Your task to perform on an android device: Show the shopping cart on amazon.com. Image 0: 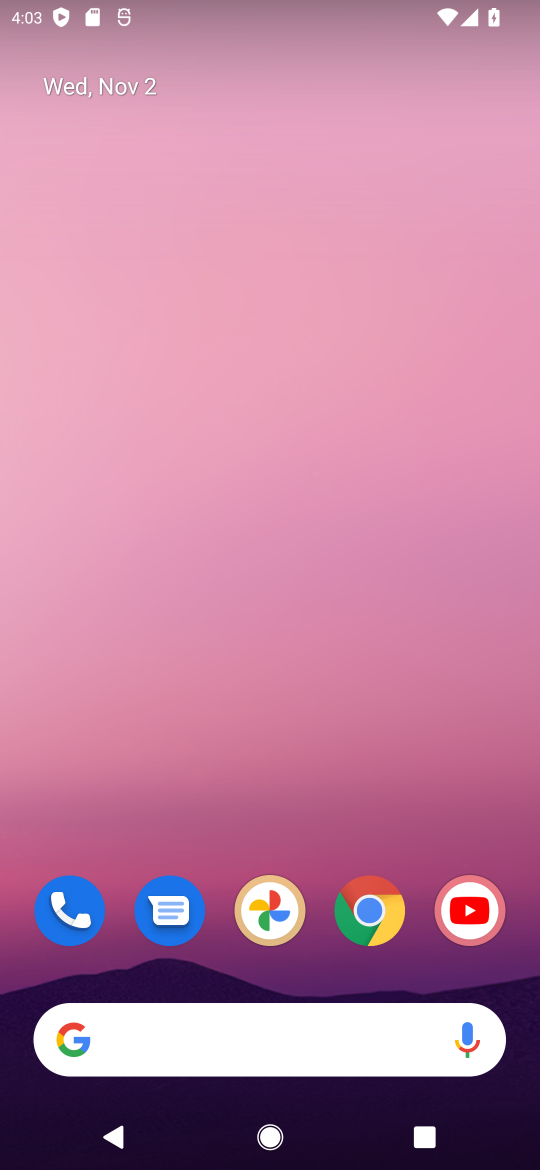
Step 0: click (386, 913)
Your task to perform on an android device: Show the shopping cart on amazon.com. Image 1: 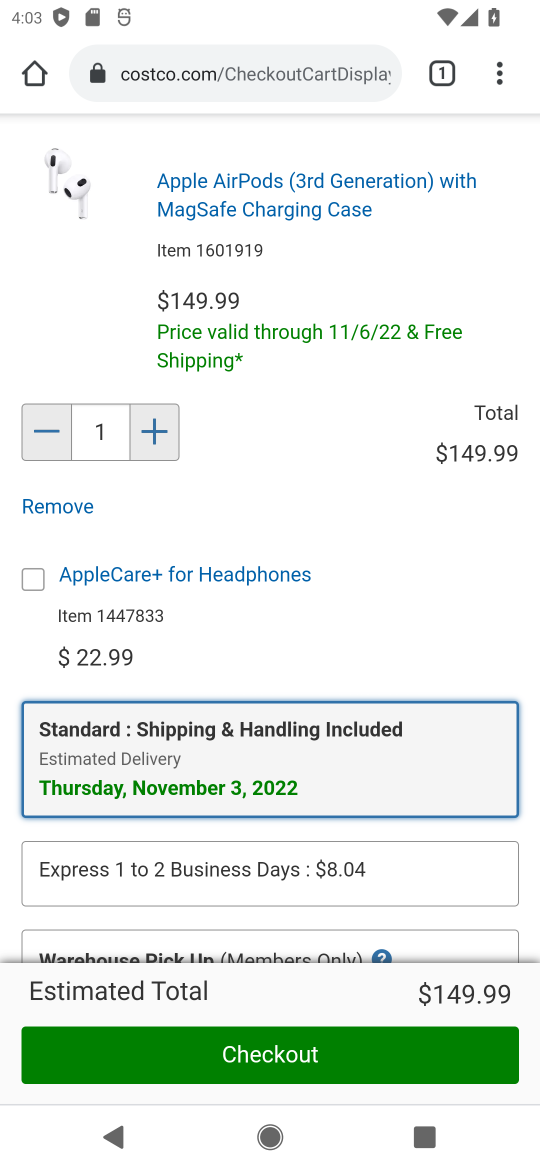
Step 1: click (231, 68)
Your task to perform on an android device: Show the shopping cart on amazon.com. Image 2: 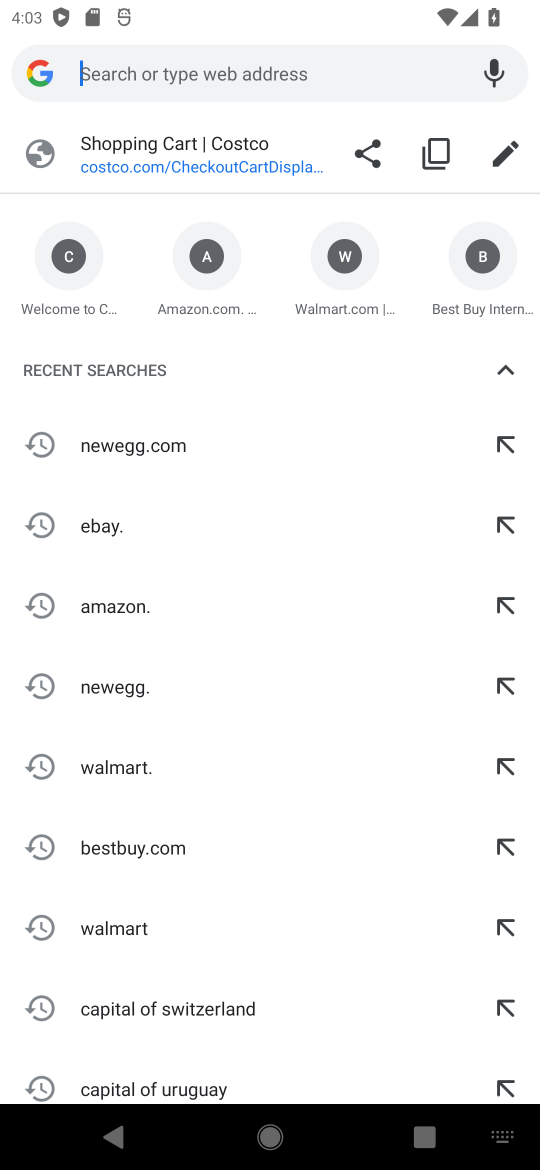
Step 2: type "amazon.com"
Your task to perform on an android device: Show the shopping cart on amazon.com. Image 3: 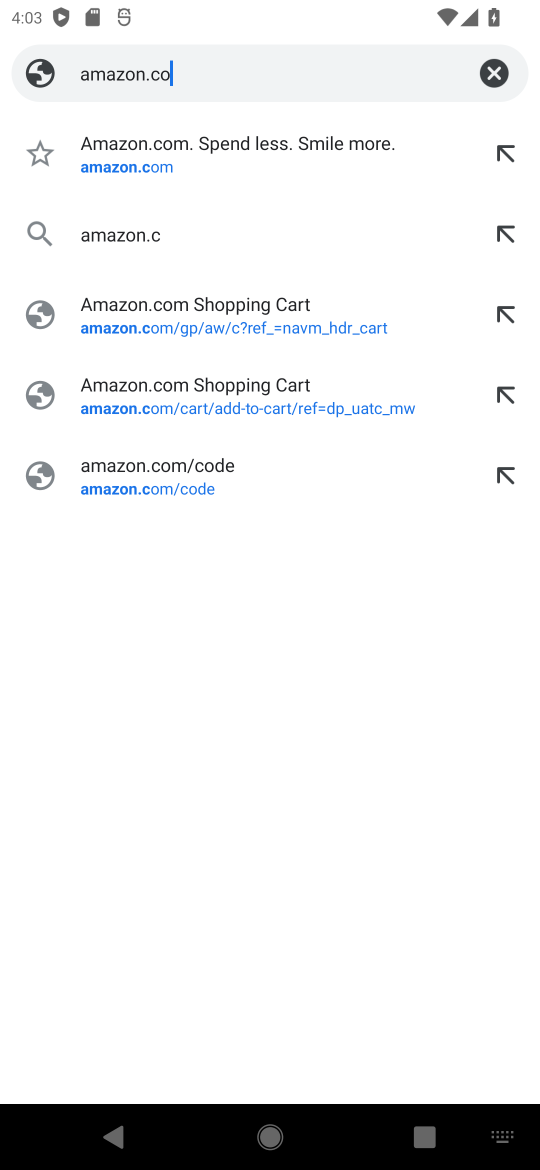
Step 3: type ""
Your task to perform on an android device: Show the shopping cart on amazon.com. Image 4: 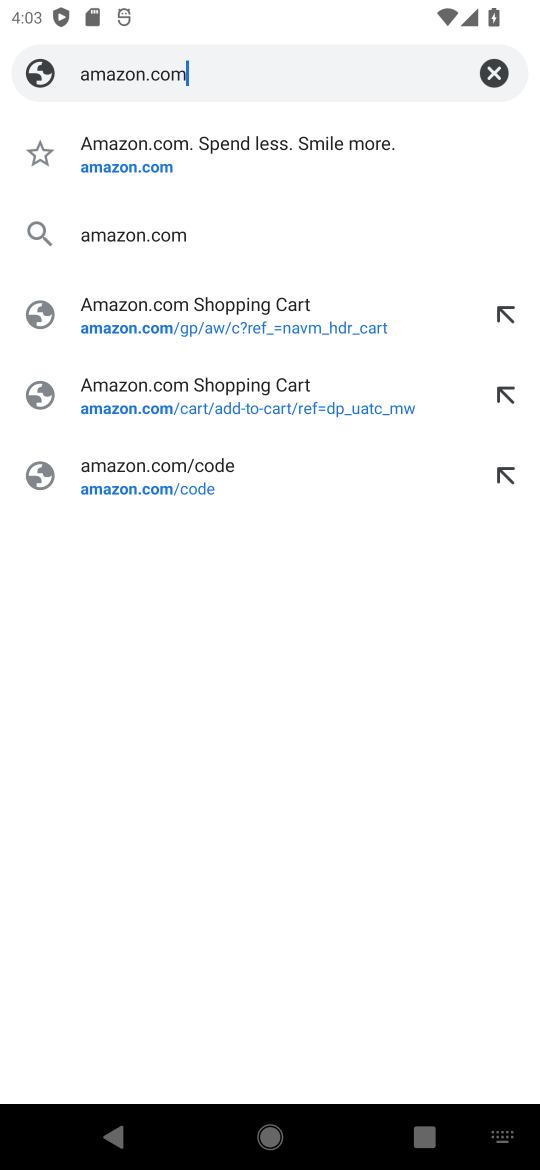
Step 4: click (234, 154)
Your task to perform on an android device: Show the shopping cart on amazon.com. Image 5: 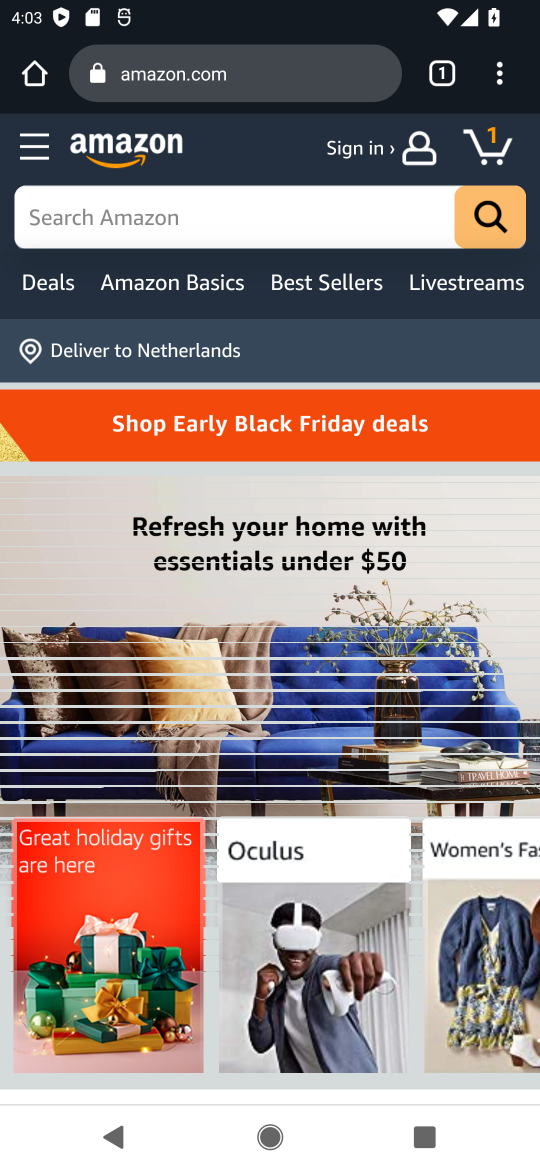
Step 5: click (489, 139)
Your task to perform on an android device: Show the shopping cart on amazon.com. Image 6: 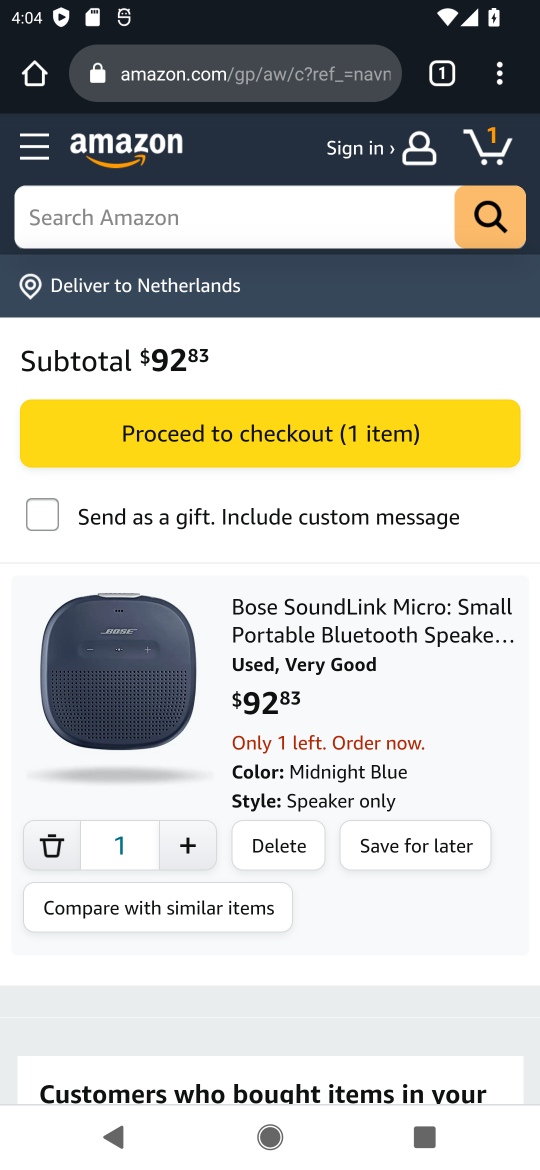
Step 6: click (265, 842)
Your task to perform on an android device: Show the shopping cart on amazon.com. Image 7: 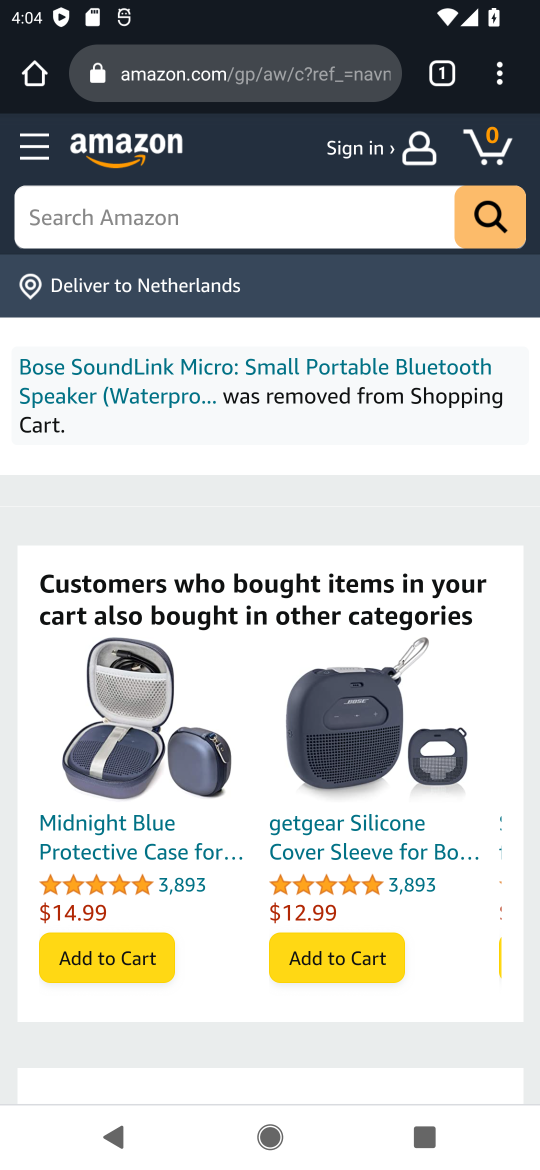
Step 7: drag from (247, 874) to (341, 352)
Your task to perform on an android device: Show the shopping cart on amazon.com. Image 8: 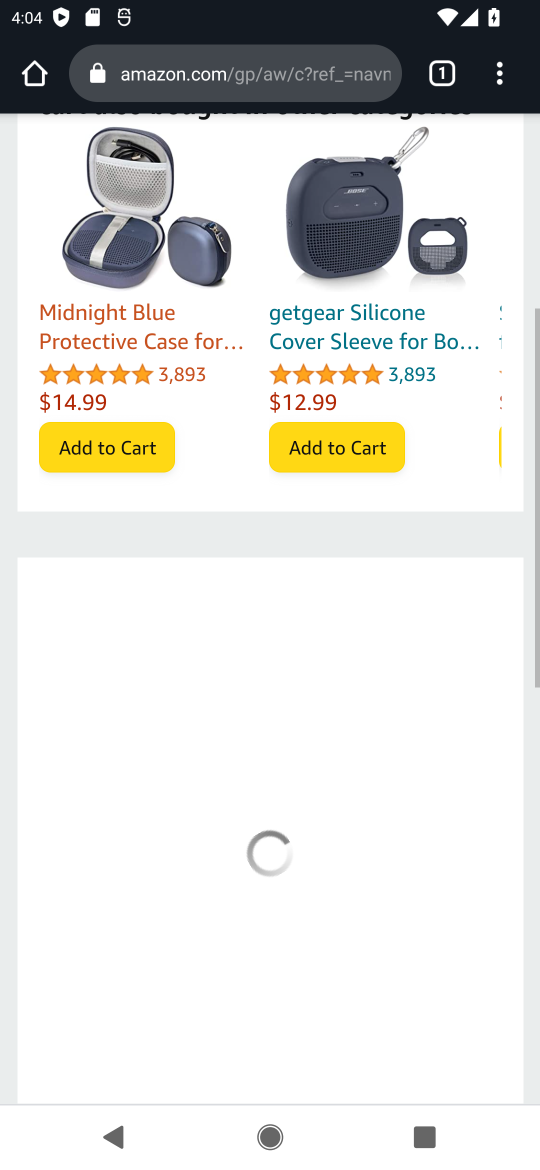
Step 8: drag from (269, 820) to (283, 384)
Your task to perform on an android device: Show the shopping cart on amazon.com. Image 9: 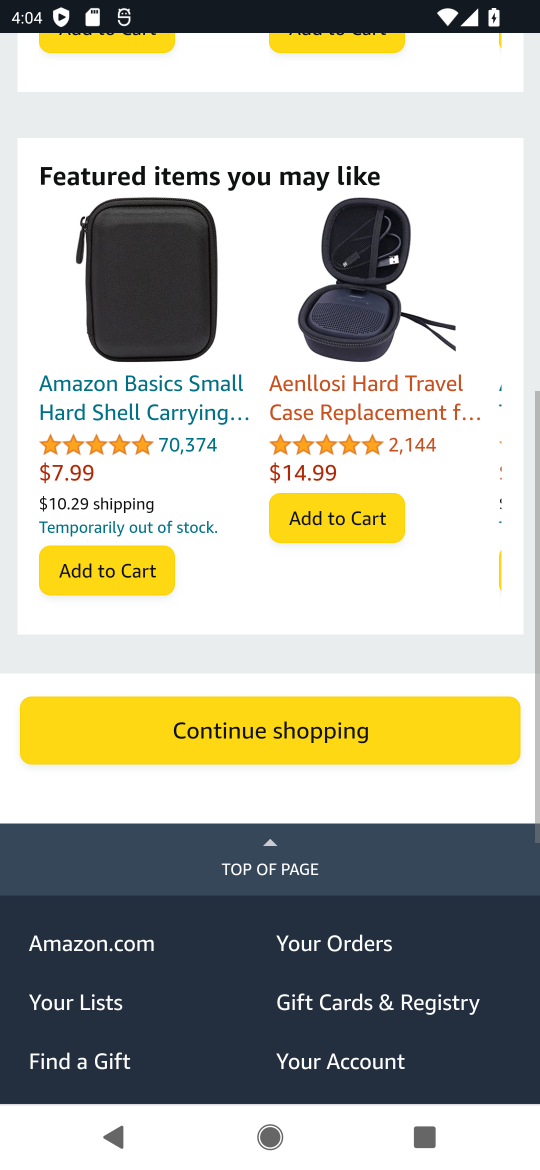
Step 9: drag from (273, 481) to (294, 369)
Your task to perform on an android device: Show the shopping cart on amazon.com. Image 10: 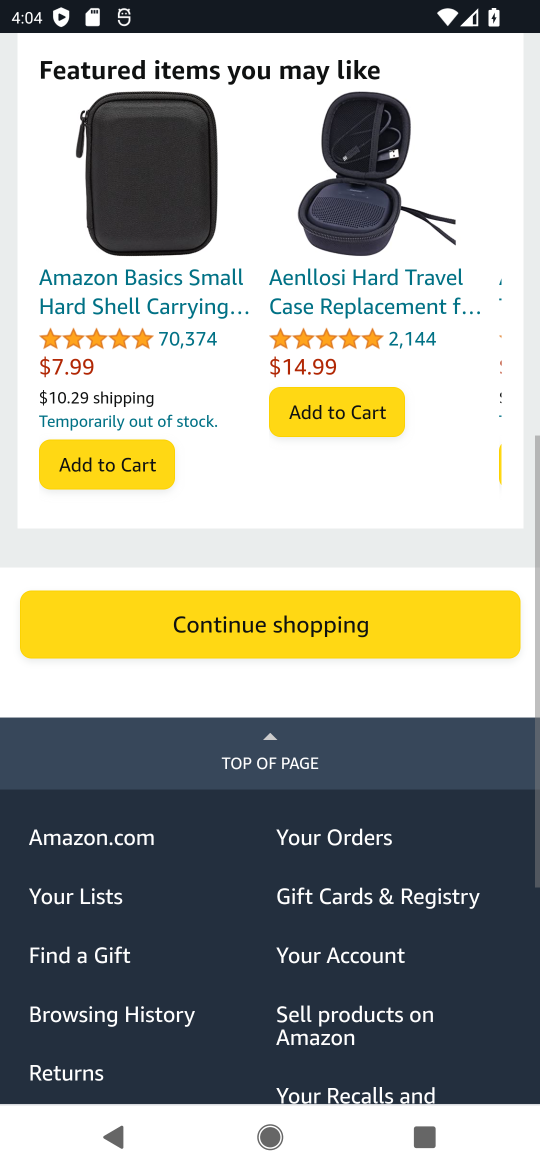
Step 10: drag from (293, 759) to (317, 341)
Your task to perform on an android device: Show the shopping cart on amazon.com. Image 11: 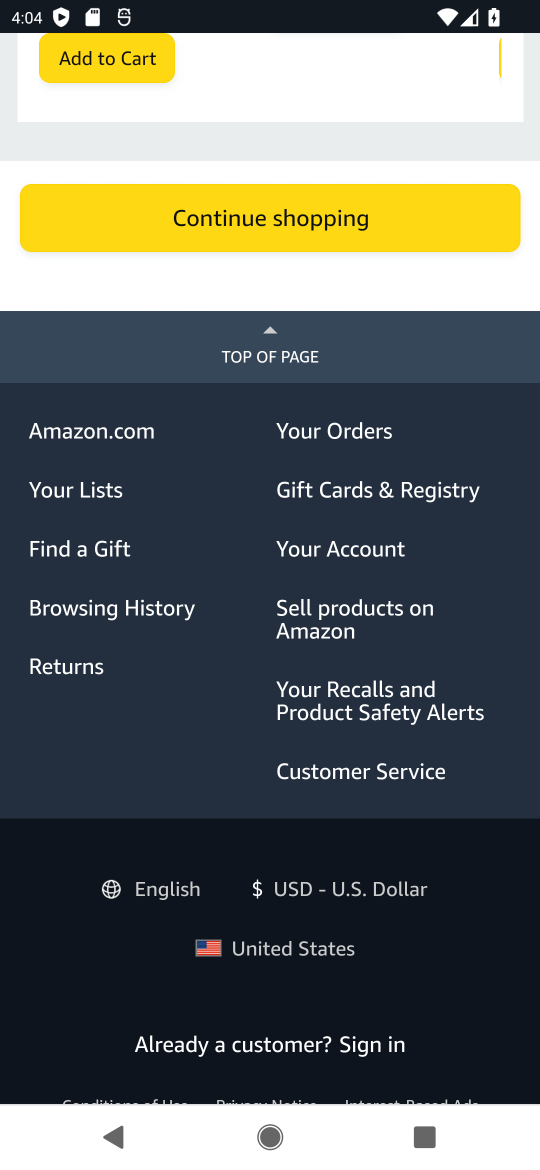
Step 11: click (300, 237)
Your task to perform on an android device: Show the shopping cart on amazon.com. Image 12: 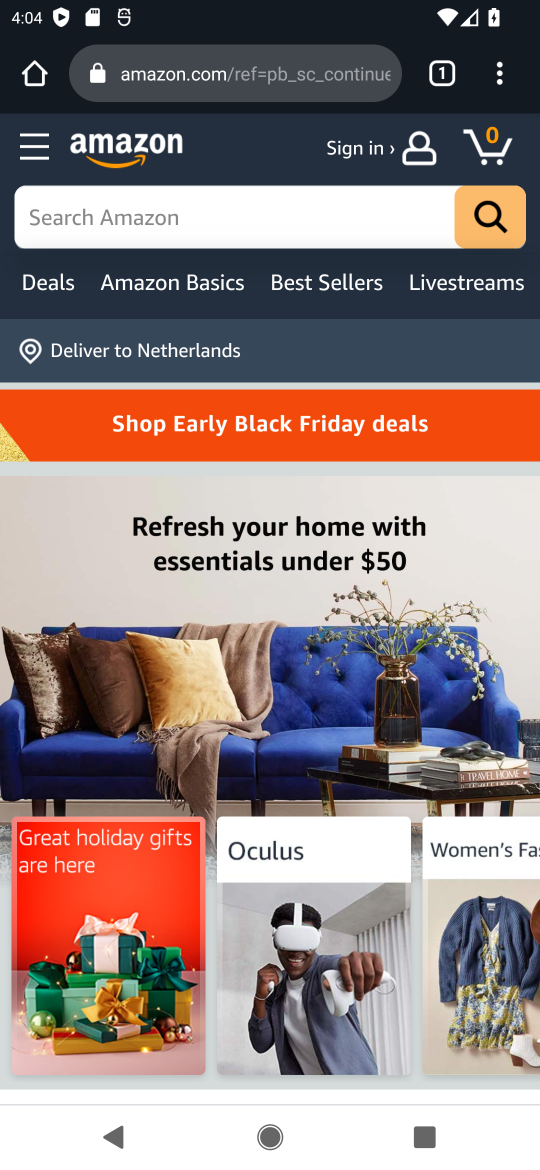
Step 12: drag from (192, 841) to (285, 359)
Your task to perform on an android device: Show the shopping cart on amazon.com. Image 13: 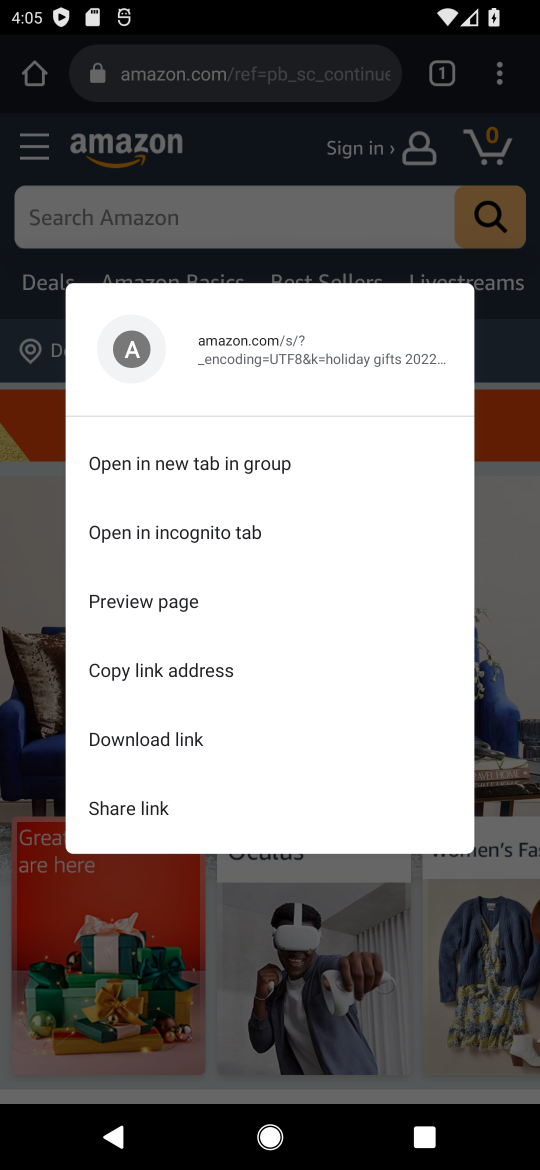
Step 13: drag from (306, 511) to (330, 440)
Your task to perform on an android device: Show the shopping cart on amazon.com. Image 14: 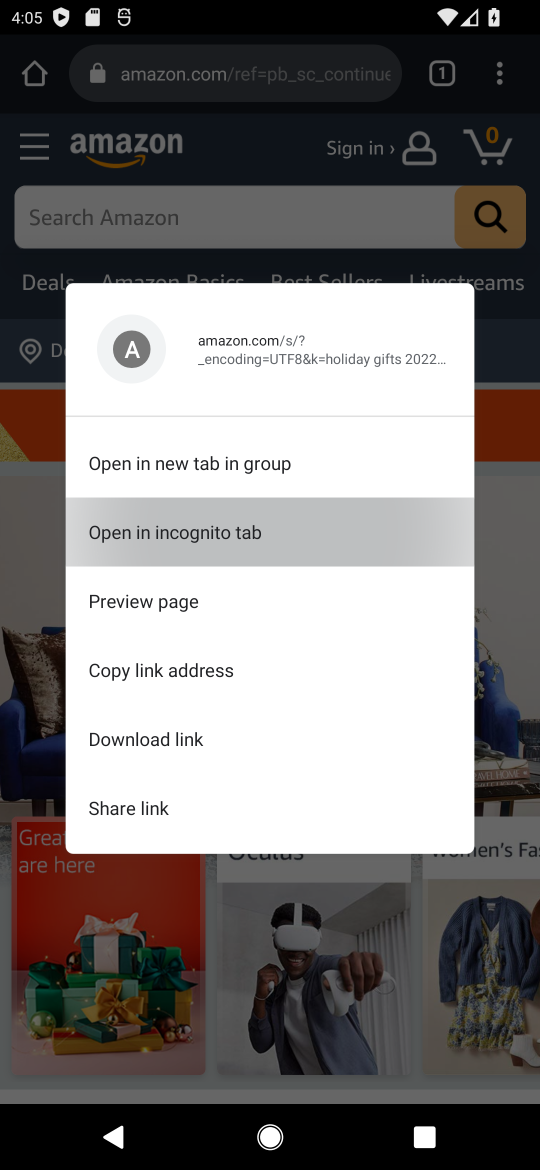
Step 14: click (510, 818)
Your task to perform on an android device: Show the shopping cart on amazon.com. Image 15: 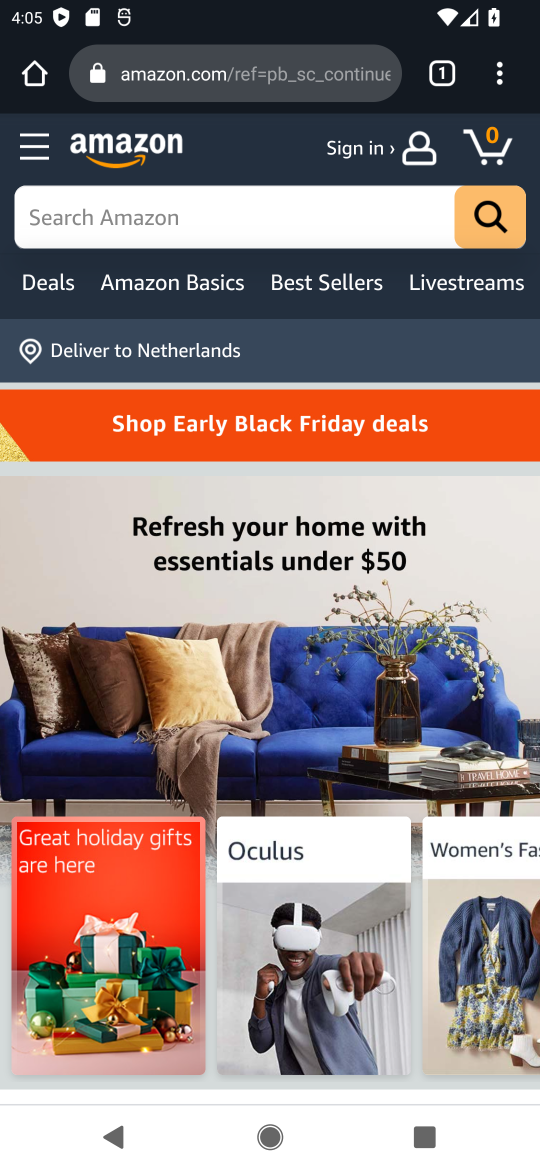
Step 15: drag from (369, 893) to (393, 374)
Your task to perform on an android device: Show the shopping cart on amazon.com. Image 16: 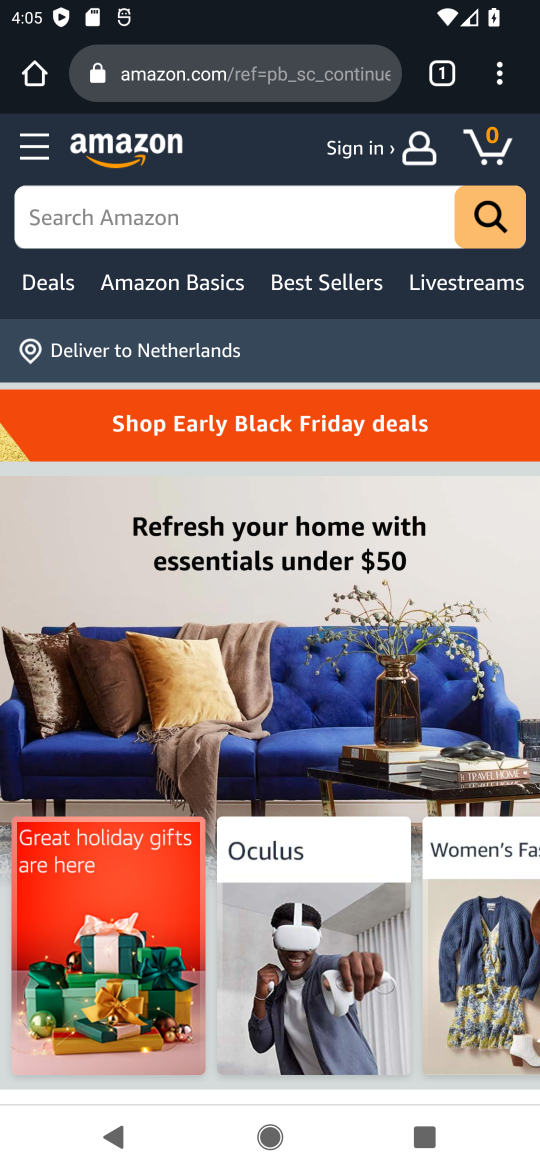
Step 16: drag from (327, 819) to (386, 345)
Your task to perform on an android device: Show the shopping cart on amazon.com. Image 17: 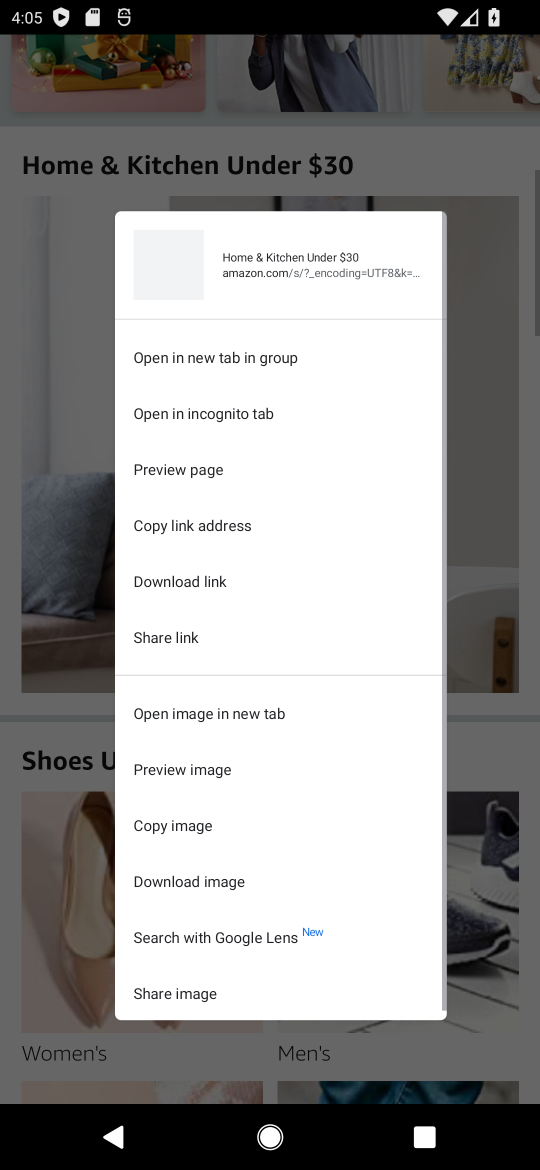
Step 17: drag from (312, 612) to (327, 445)
Your task to perform on an android device: Show the shopping cart on amazon.com. Image 18: 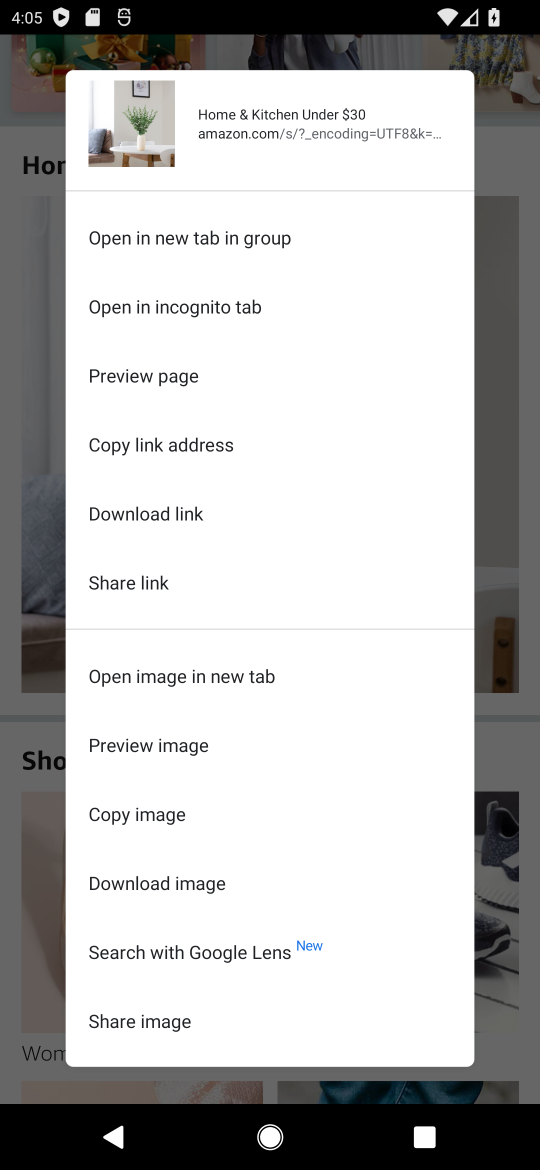
Step 18: drag from (336, 636) to (368, 490)
Your task to perform on an android device: Show the shopping cart on amazon.com. Image 19: 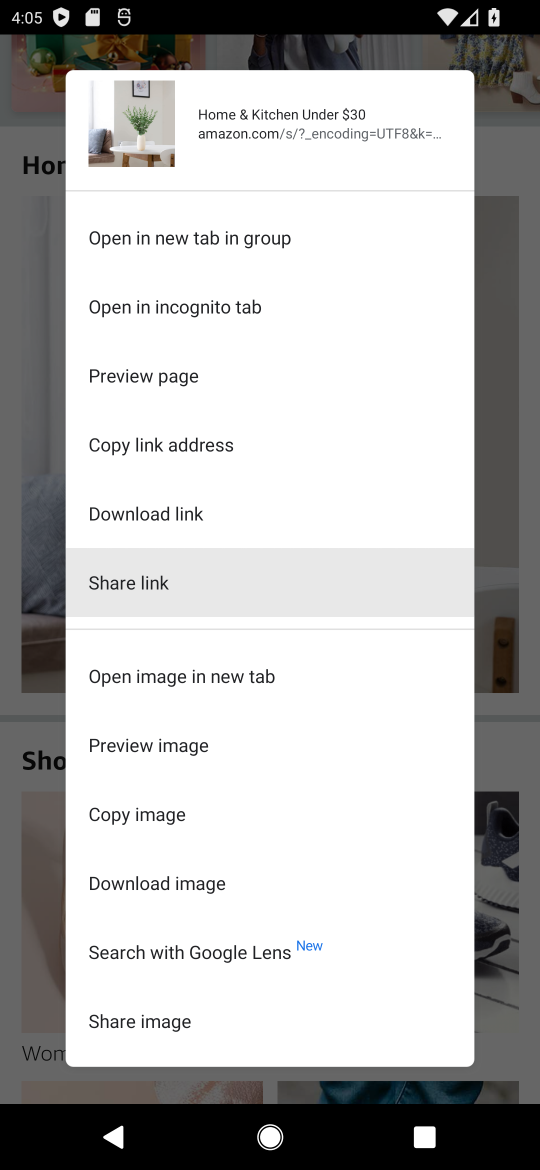
Step 19: click (519, 576)
Your task to perform on an android device: Show the shopping cart on amazon.com. Image 20: 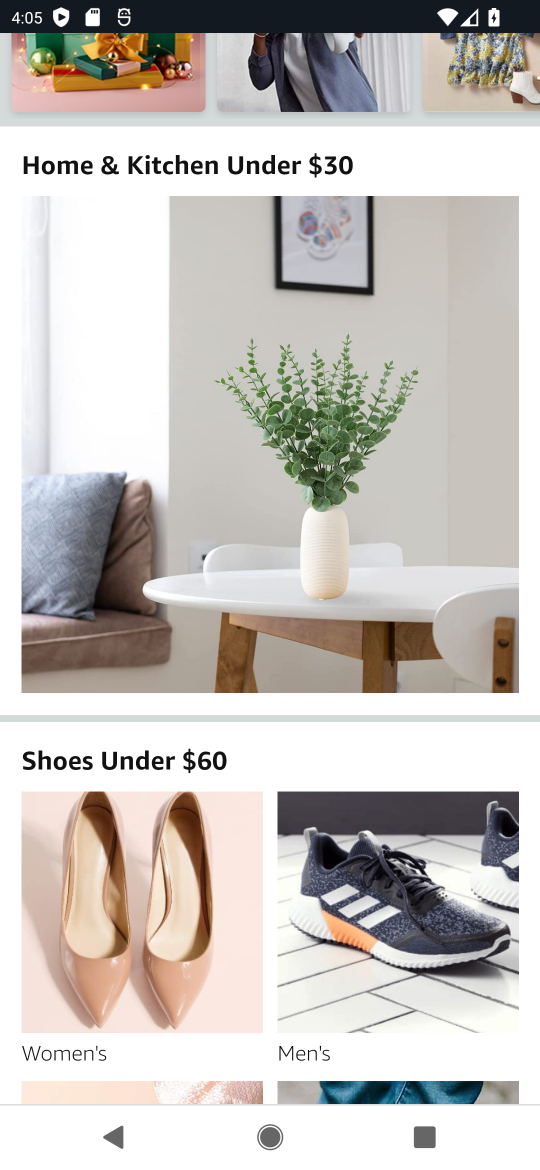
Step 20: drag from (369, 727) to (447, 403)
Your task to perform on an android device: Show the shopping cart on amazon.com. Image 21: 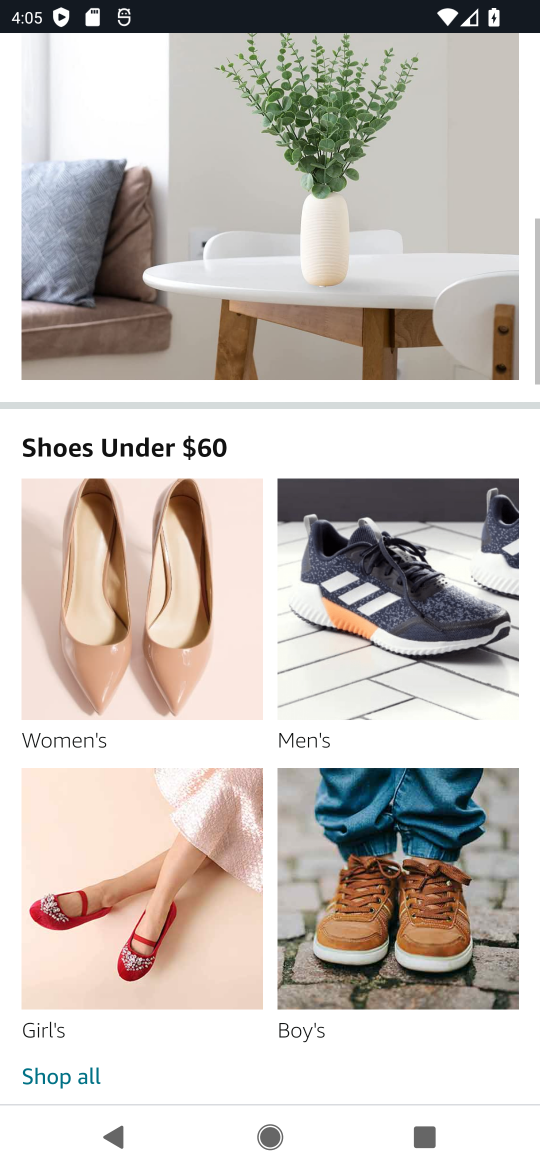
Step 21: drag from (334, 473) to (375, 286)
Your task to perform on an android device: Show the shopping cart on amazon.com. Image 22: 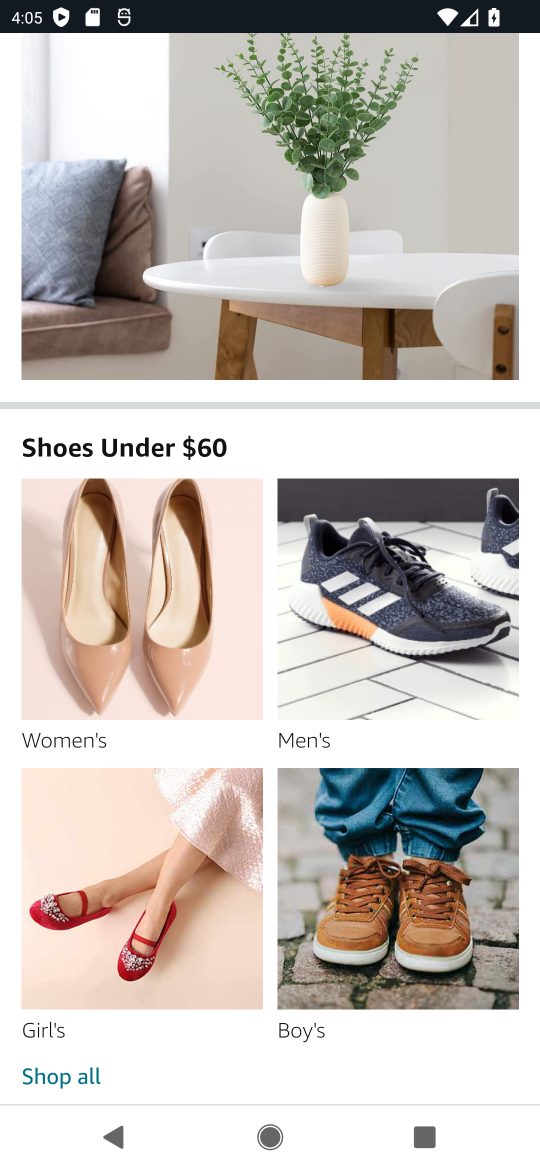
Step 22: drag from (355, 503) to (374, 314)
Your task to perform on an android device: Show the shopping cart on amazon.com. Image 23: 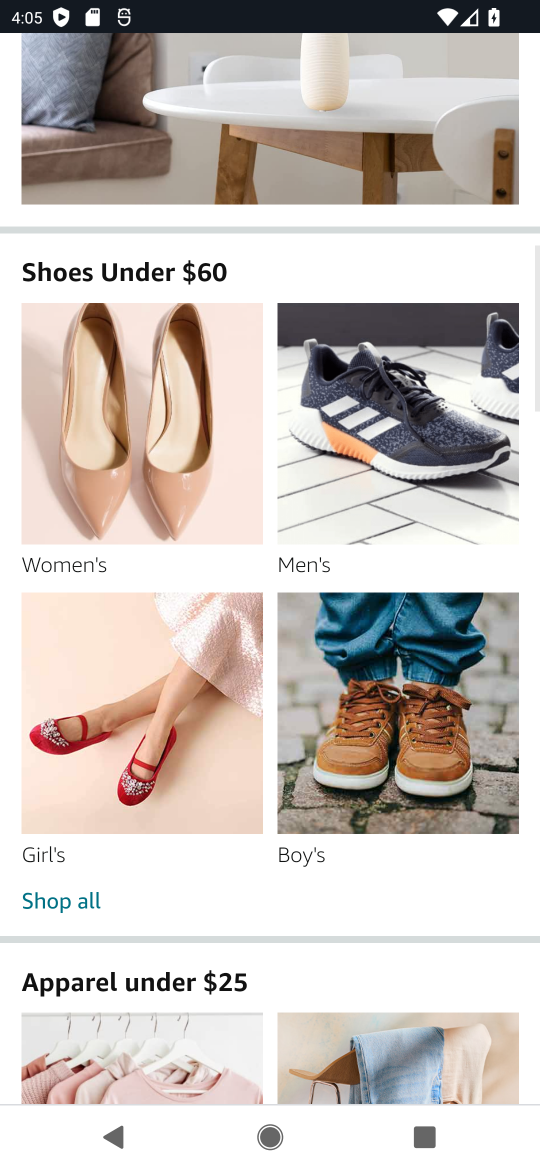
Step 23: click (426, 380)
Your task to perform on an android device: Show the shopping cart on amazon.com. Image 24: 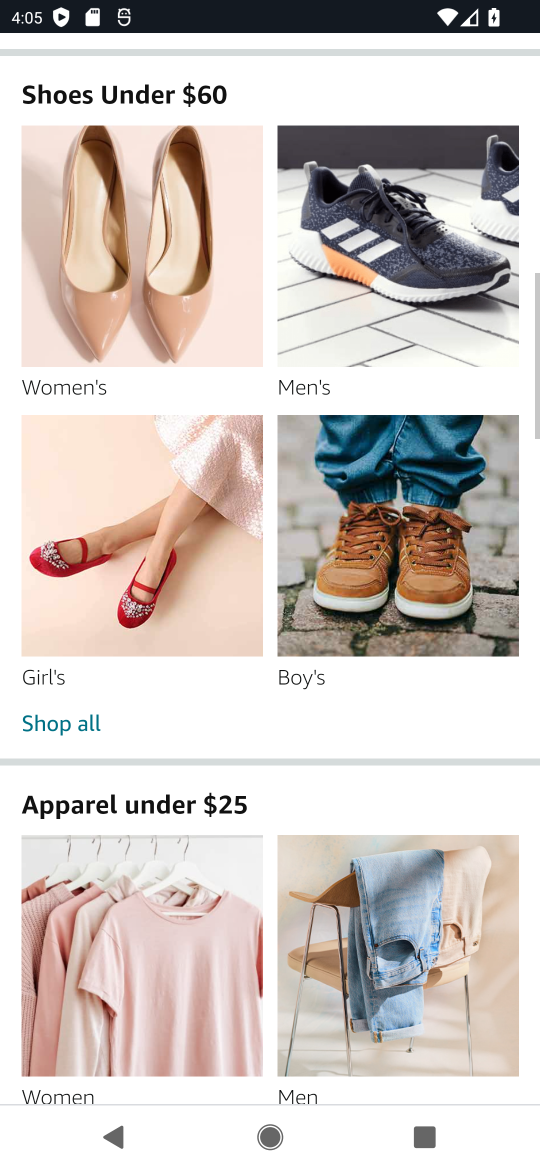
Step 24: drag from (397, 532) to (400, 340)
Your task to perform on an android device: Show the shopping cart on amazon.com. Image 25: 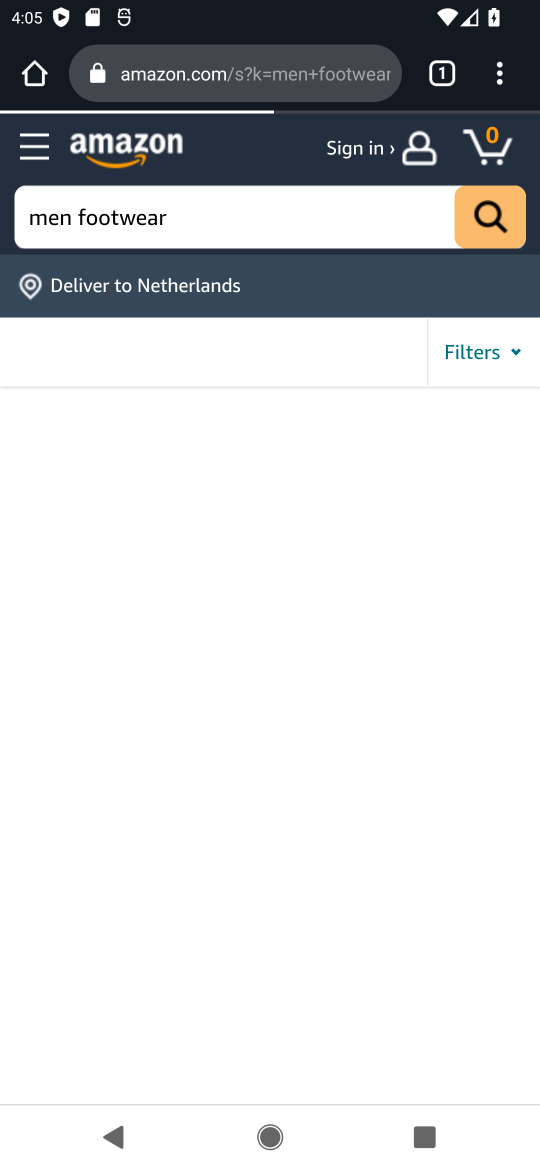
Step 25: drag from (356, 710) to (399, 326)
Your task to perform on an android device: Show the shopping cart on amazon.com. Image 26: 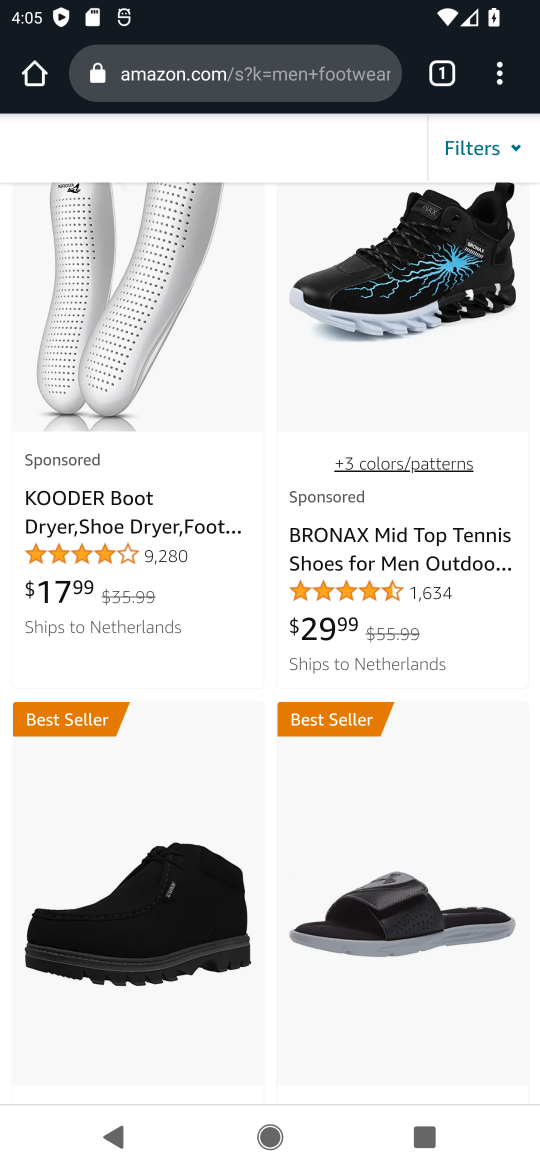
Step 26: drag from (330, 555) to (398, 223)
Your task to perform on an android device: Show the shopping cart on amazon.com. Image 27: 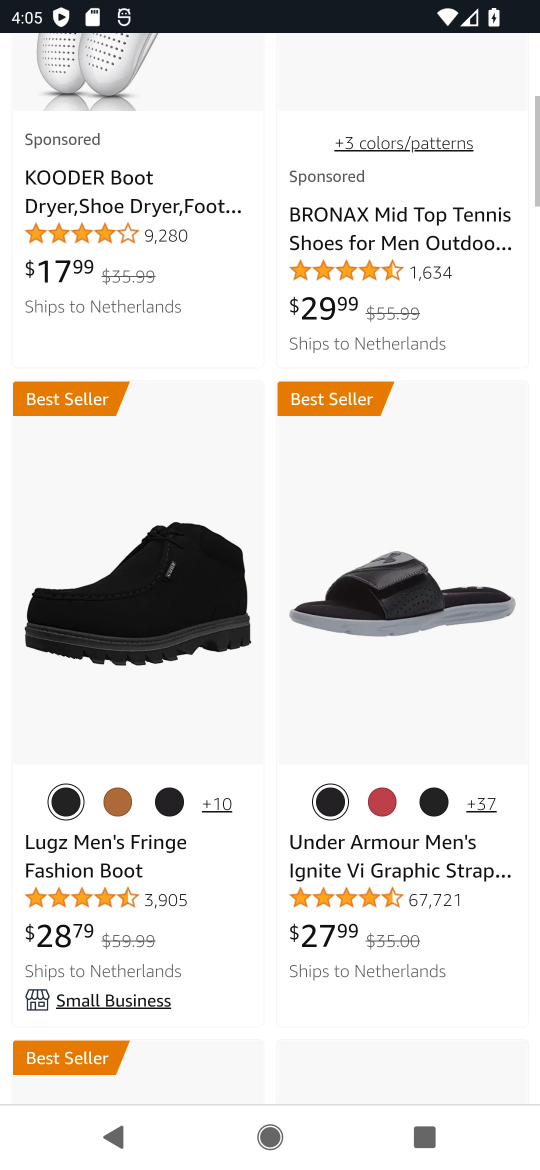
Step 27: click (444, 245)
Your task to perform on an android device: Show the shopping cart on amazon.com. Image 28: 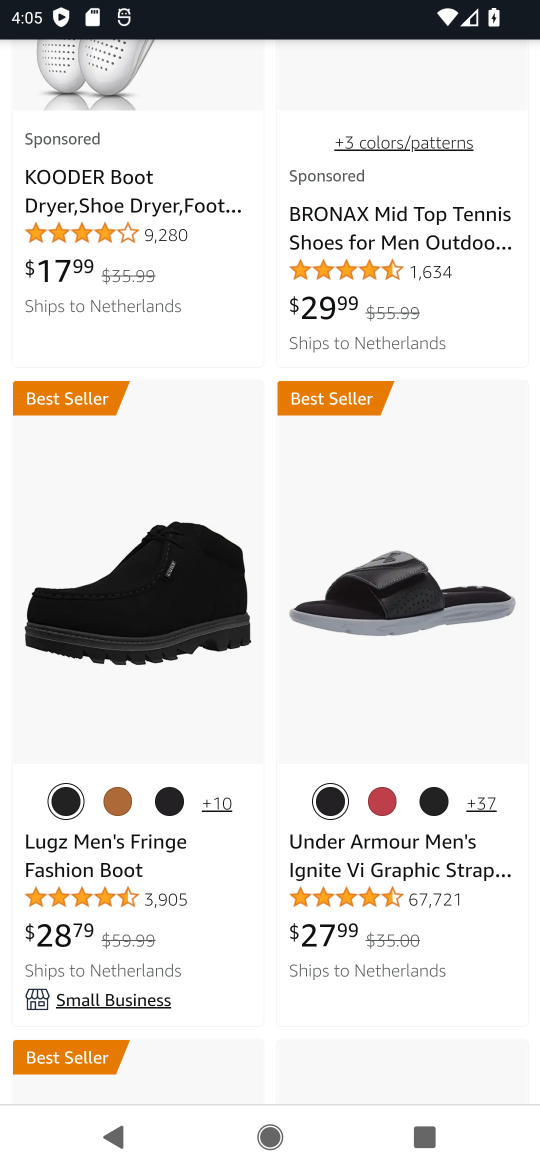
Step 28: task complete